Your task to perform on an android device: Open the web browser Image 0: 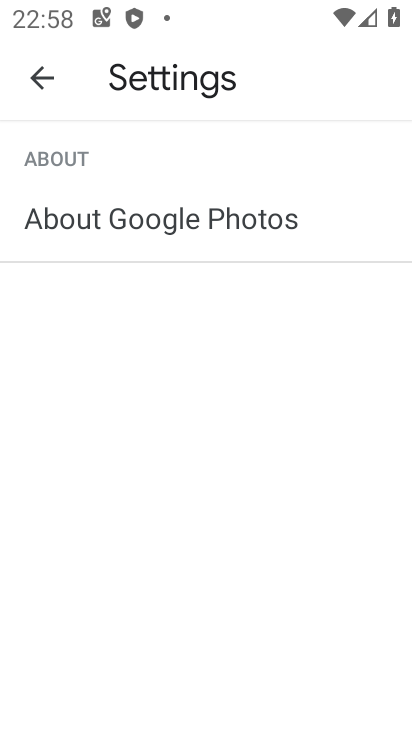
Step 0: press home button
Your task to perform on an android device: Open the web browser Image 1: 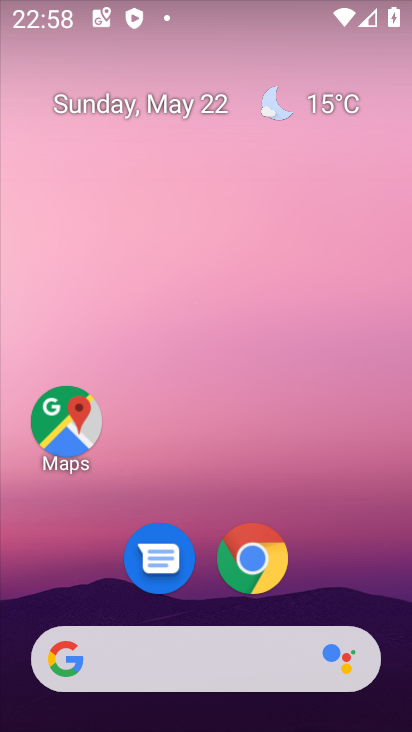
Step 1: click (253, 559)
Your task to perform on an android device: Open the web browser Image 2: 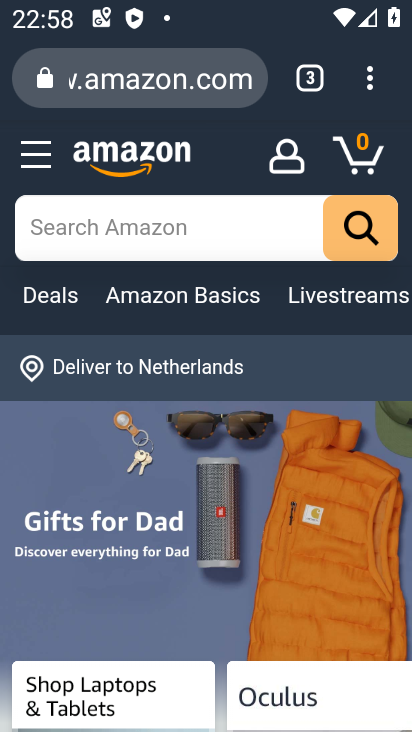
Step 2: task complete